Your task to perform on an android device: open app "Fetch Rewards" (install if not already installed) Image 0: 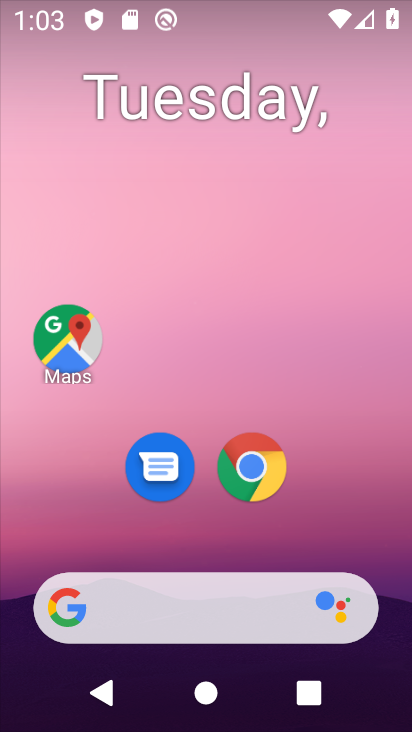
Step 0: drag from (188, 580) to (364, 82)
Your task to perform on an android device: open app "Fetch Rewards" (install if not already installed) Image 1: 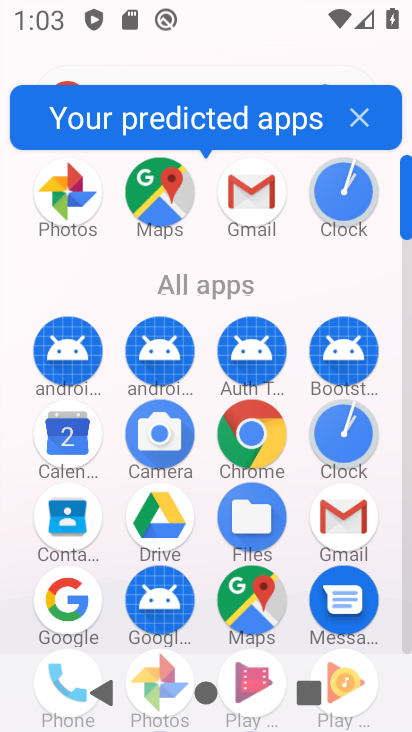
Step 1: drag from (192, 579) to (411, 172)
Your task to perform on an android device: open app "Fetch Rewards" (install if not already installed) Image 2: 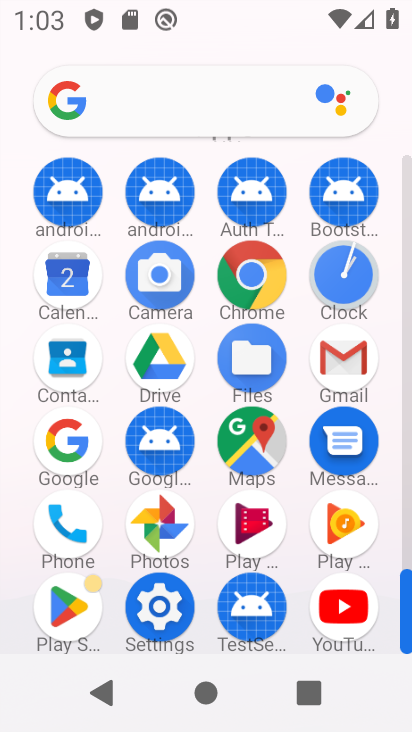
Step 2: click (71, 606)
Your task to perform on an android device: open app "Fetch Rewards" (install if not already installed) Image 3: 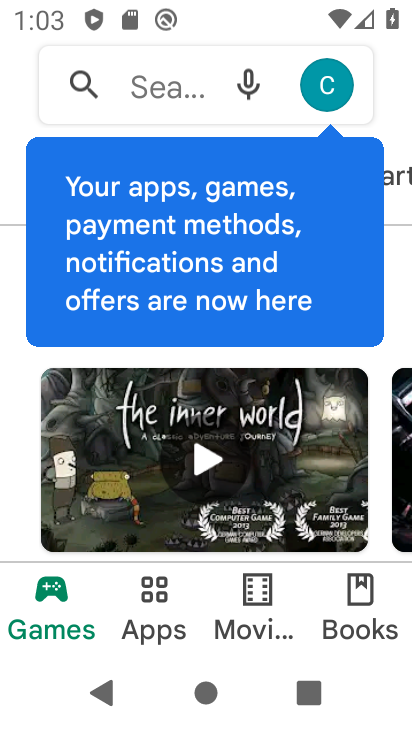
Step 3: click (184, 79)
Your task to perform on an android device: open app "Fetch Rewards" (install if not already installed) Image 4: 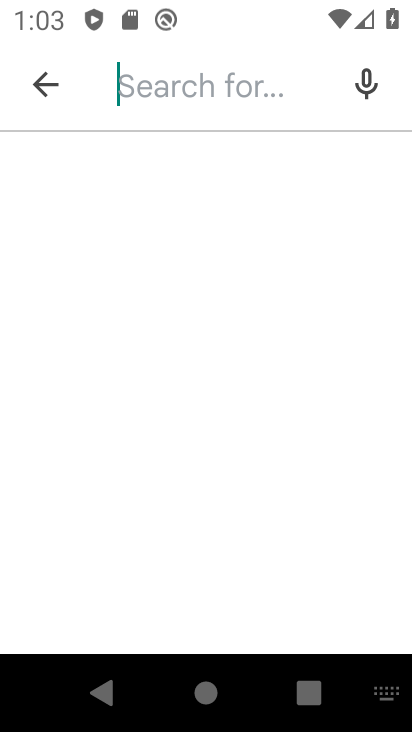
Step 4: type "Fetch Rewards"
Your task to perform on an android device: open app "Fetch Rewards" (install if not already installed) Image 5: 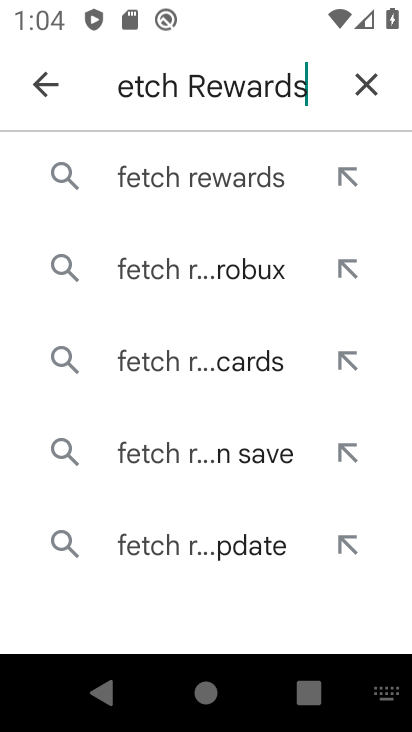
Step 5: click (255, 178)
Your task to perform on an android device: open app "Fetch Rewards" (install if not already installed) Image 6: 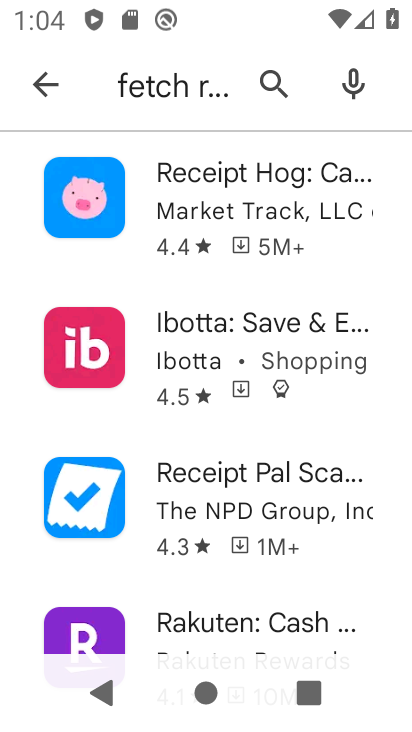
Step 6: task complete